Your task to perform on an android device: toggle translation in the chrome app Image 0: 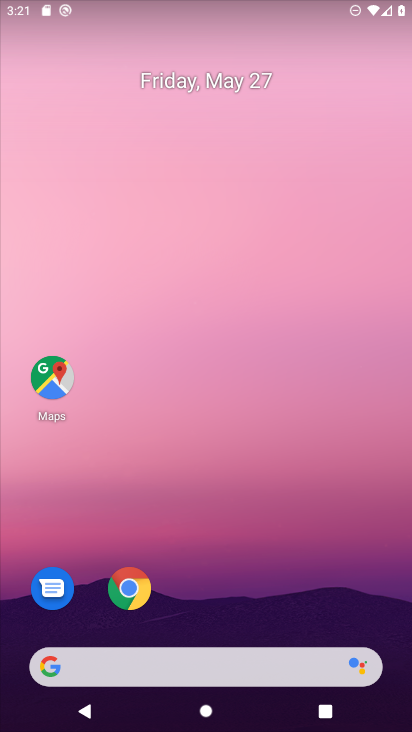
Step 0: click (123, 616)
Your task to perform on an android device: toggle translation in the chrome app Image 1: 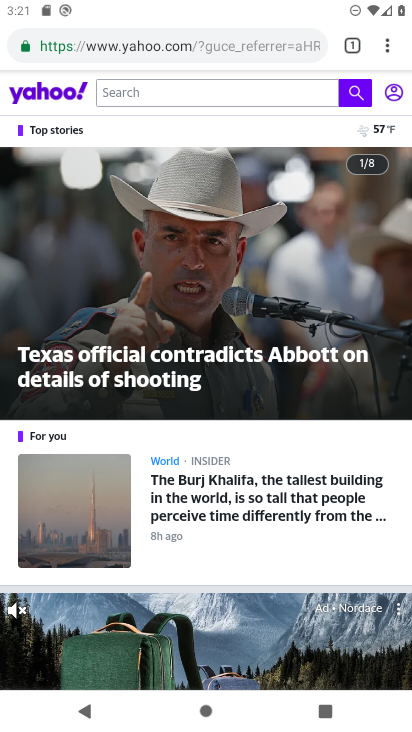
Step 1: click (393, 50)
Your task to perform on an android device: toggle translation in the chrome app Image 2: 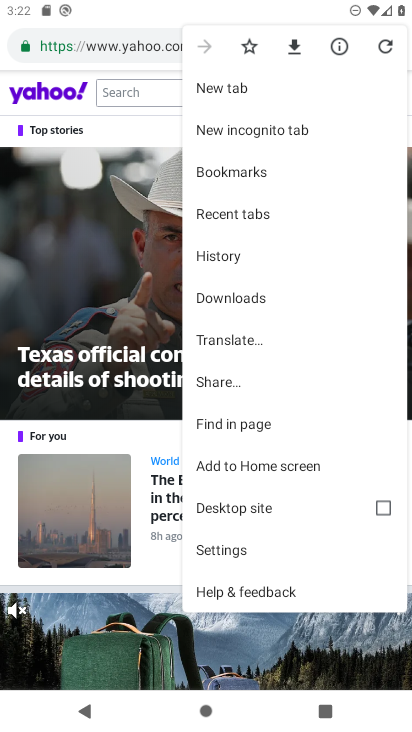
Step 2: click (271, 535)
Your task to perform on an android device: toggle translation in the chrome app Image 3: 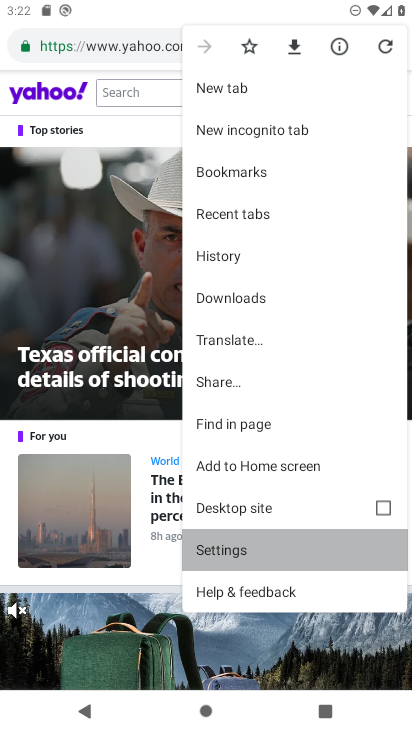
Step 3: click (271, 535)
Your task to perform on an android device: toggle translation in the chrome app Image 4: 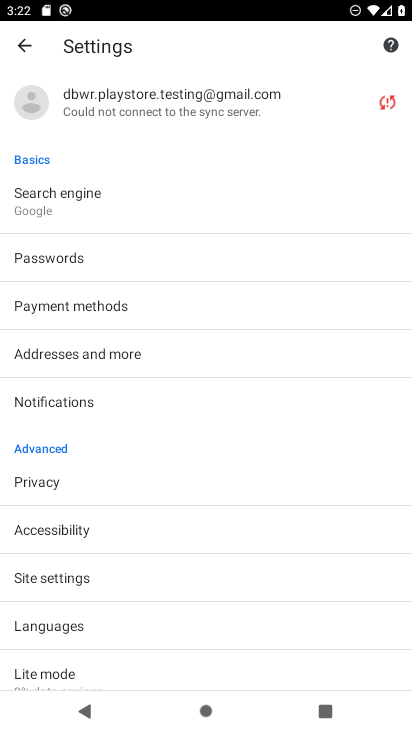
Step 4: click (140, 627)
Your task to perform on an android device: toggle translation in the chrome app Image 5: 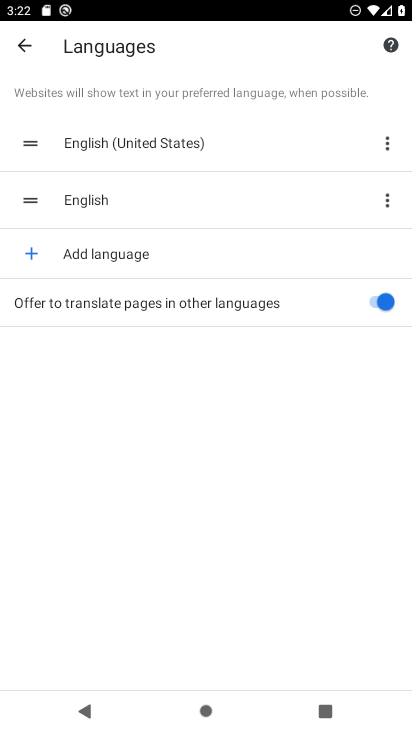
Step 5: click (376, 311)
Your task to perform on an android device: toggle translation in the chrome app Image 6: 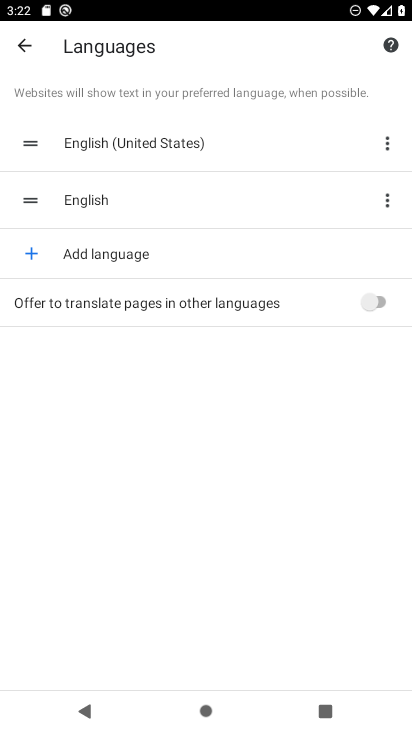
Step 6: task complete